Your task to perform on an android device: turn on priority inbox in the gmail app Image 0: 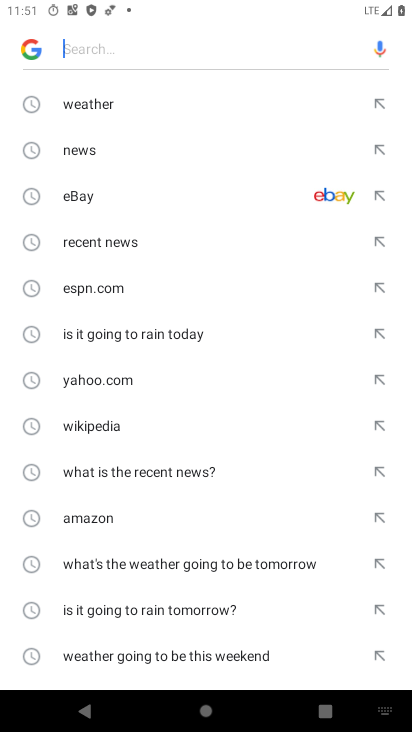
Step 0: press home button
Your task to perform on an android device: turn on priority inbox in the gmail app Image 1: 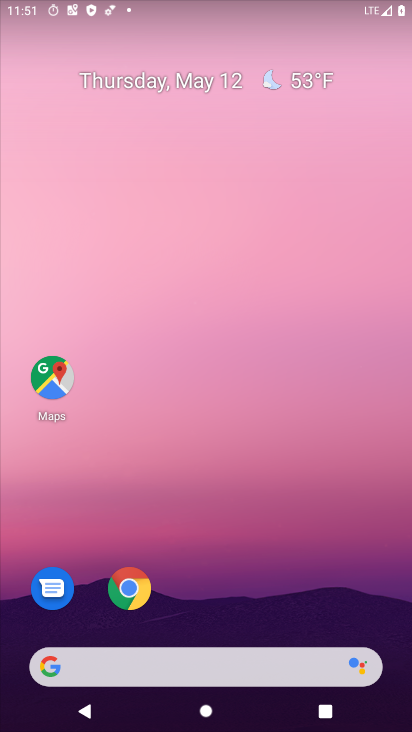
Step 1: drag from (264, 548) to (278, 103)
Your task to perform on an android device: turn on priority inbox in the gmail app Image 2: 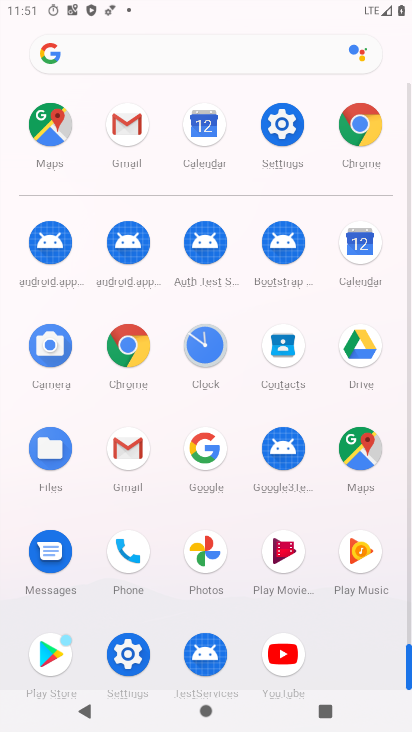
Step 2: click (130, 126)
Your task to perform on an android device: turn on priority inbox in the gmail app Image 3: 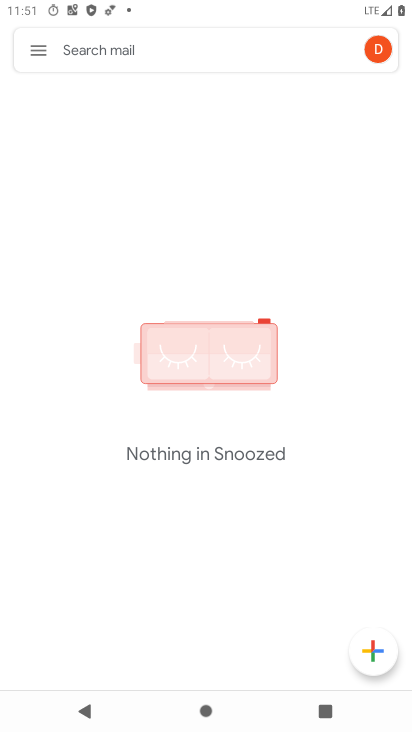
Step 3: click (34, 45)
Your task to perform on an android device: turn on priority inbox in the gmail app Image 4: 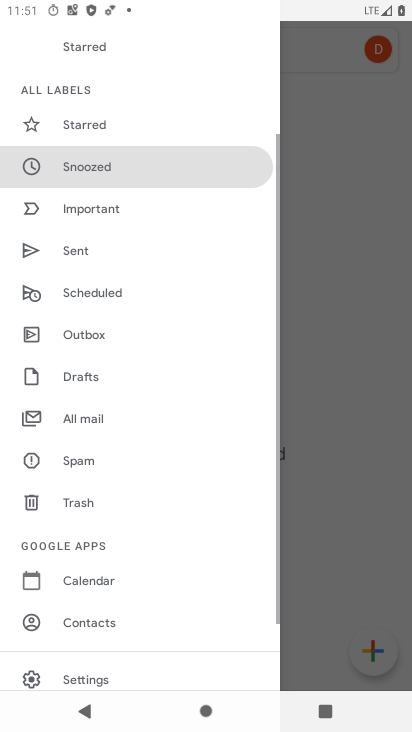
Step 4: drag from (118, 635) to (189, 150)
Your task to perform on an android device: turn on priority inbox in the gmail app Image 5: 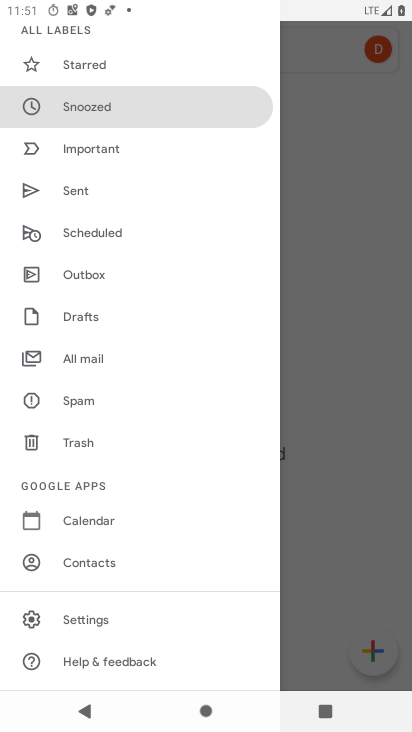
Step 5: click (81, 621)
Your task to perform on an android device: turn on priority inbox in the gmail app Image 6: 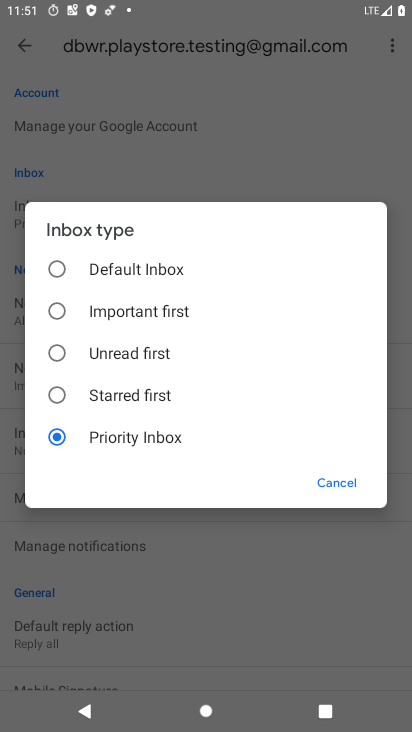
Step 6: task complete